Your task to perform on an android device: add a label to a message in the gmail app Image 0: 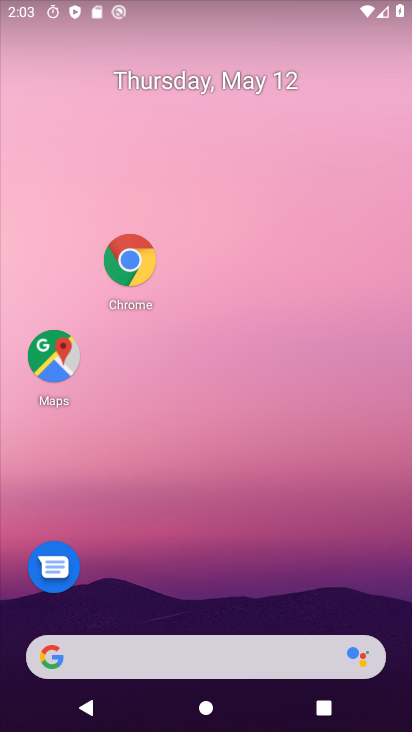
Step 0: drag from (198, 618) to (211, 241)
Your task to perform on an android device: add a label to a message in the gmail app Image 1: 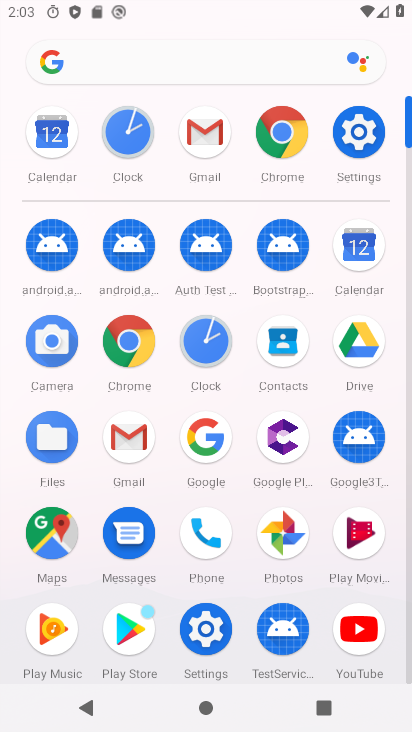
Step 1: click (205, 141)
Your task to perform on an android device: add a label to a message in the gmail app Image 2: 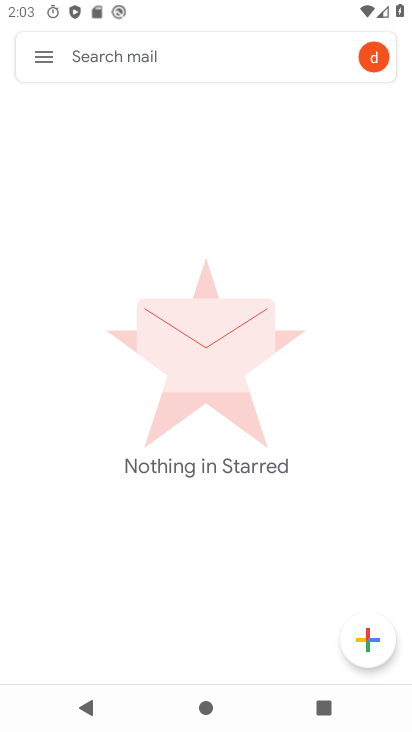
Step 2: click (51, 62)
Your task to perform on an android device: add a label to a message in the gmail app Image 3: 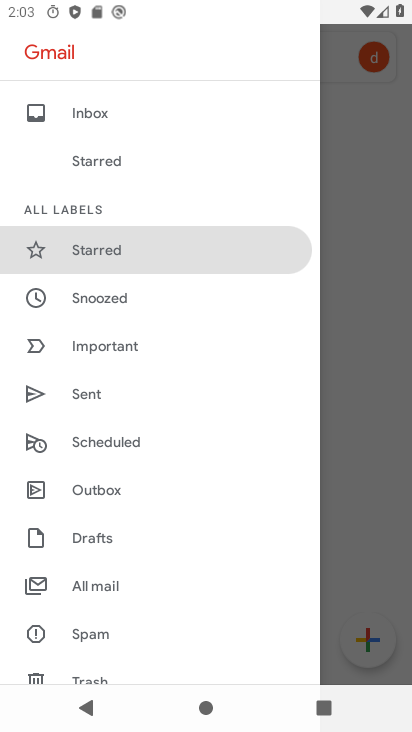
Step 3: click (88, 111)
Your task to perform on an android device: add a label to a message in the gmail app Image 4: 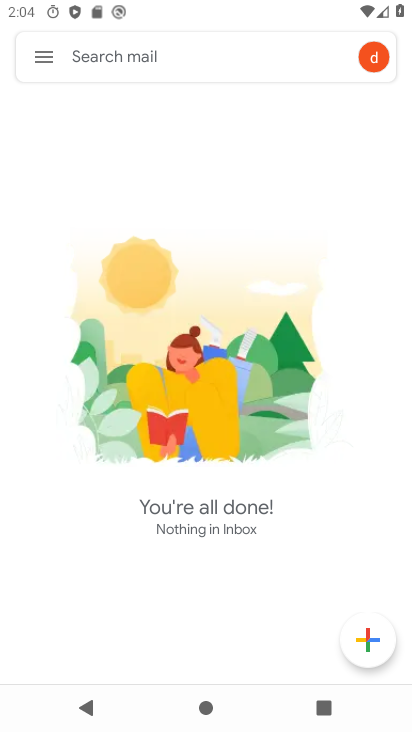
Step 4: task complete